Your task to perform on an android device: see sites visited before in the chrome app Image 0: 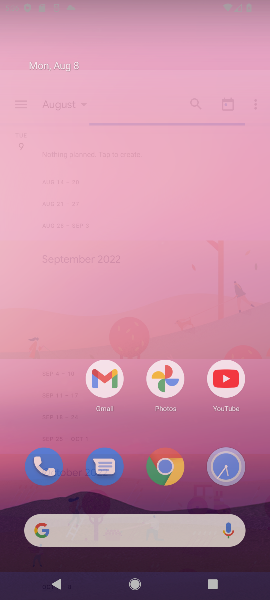
Step 0: press home button
Your task to perform on an android device: see sites visited before in the chrome app Image 1: 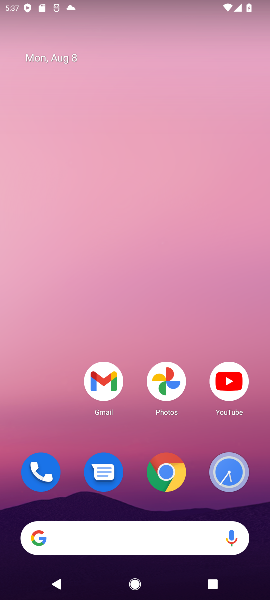
Step 1: click (171, 484)
Your task to perform on an android device: see sites visited before in the chrome app Image 2: 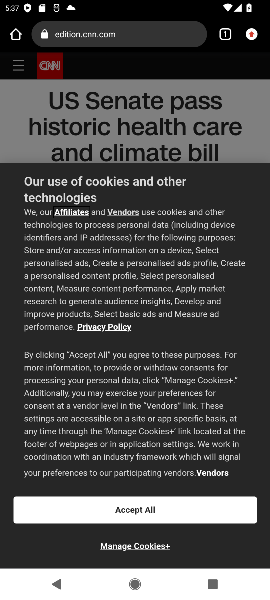
Step 2: task complete